Your task to perform on an android device: Go to sound settings Image 0: 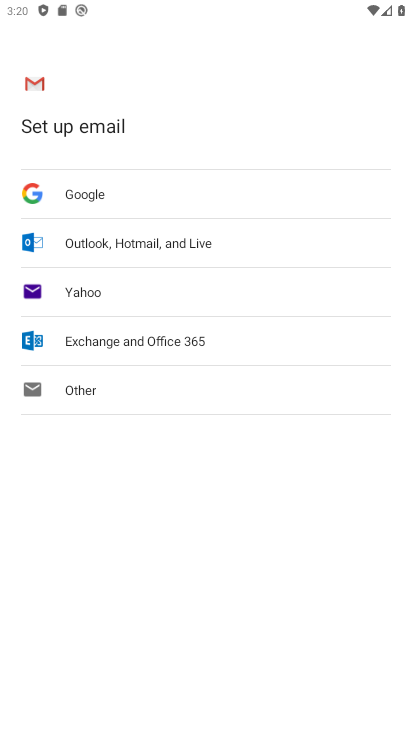
Step 0: press back button
Your task to perform on an android device: Go to sound settings Image 1: 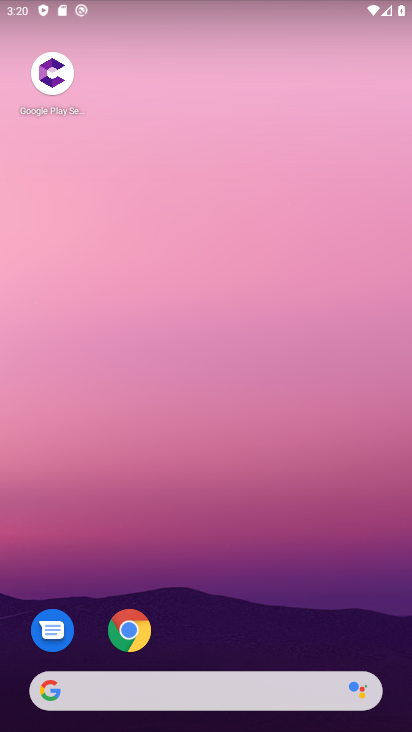
Step 1: drag from (203, 665) to (296, 136)
Your task to perform on an android device: Go to sound settings Image 2: 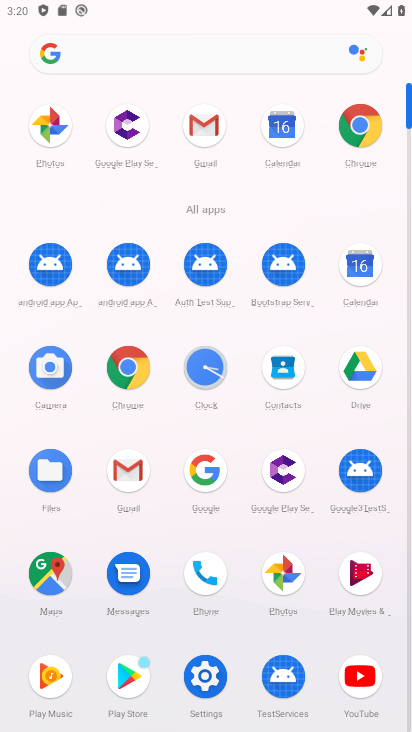
Step 2: click (214, 666)
Your task to perform on an android device: Go to sound settings Image 3: 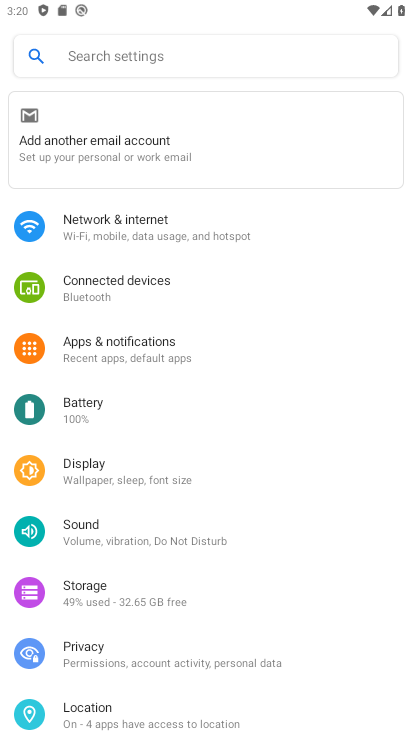
Step 3: click (151, 531)
Your task to perform on an android device: Go to sound settings Image 4: 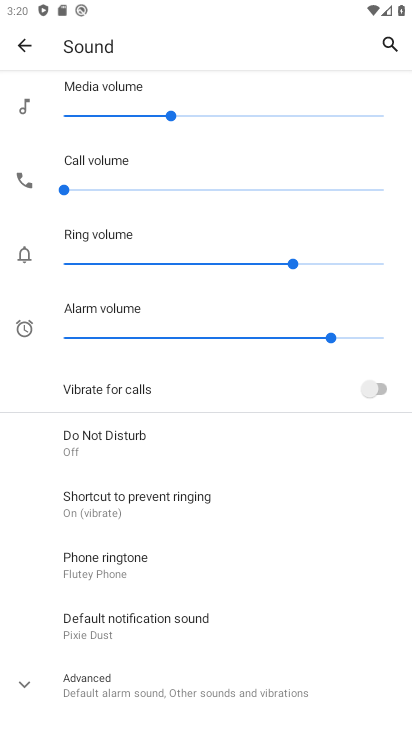
Step 4: task complete